Your task to perform on an android device: What's on my calendar today? Image 0: 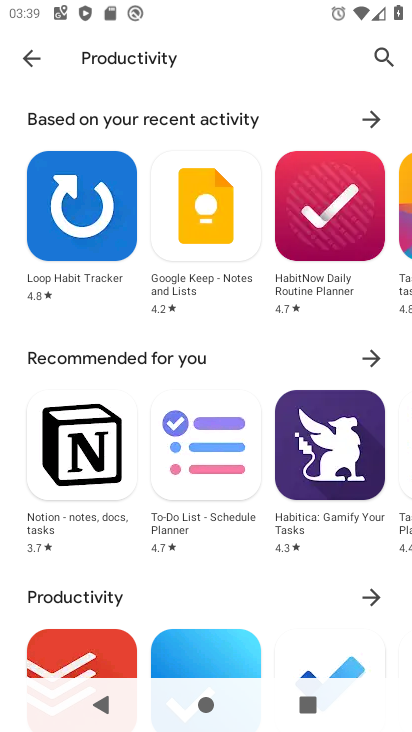
Step 0: press home button
Your task to perform on an android device: What's on my calendar today? Image 1: 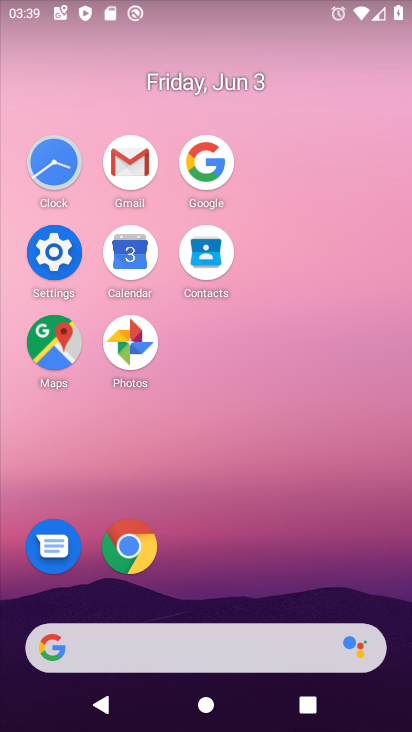
Step 1: click (138, 258)
Your task to perform on an android device: What's on my calendar today? Image 2: 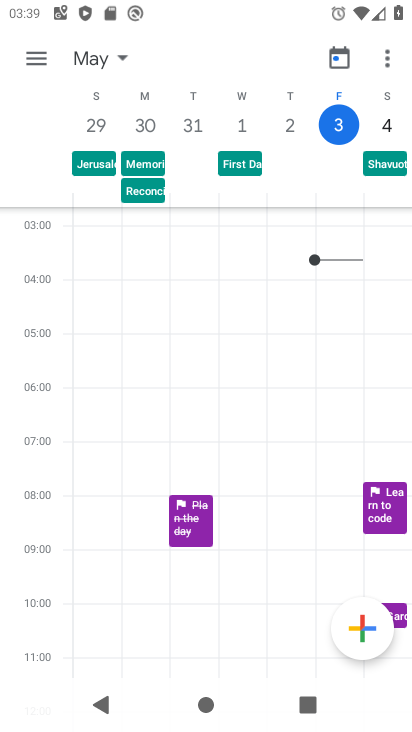
Step 2: click (348, 119)
Your task to perform on an android device: What's on my calendar today? Image 3: 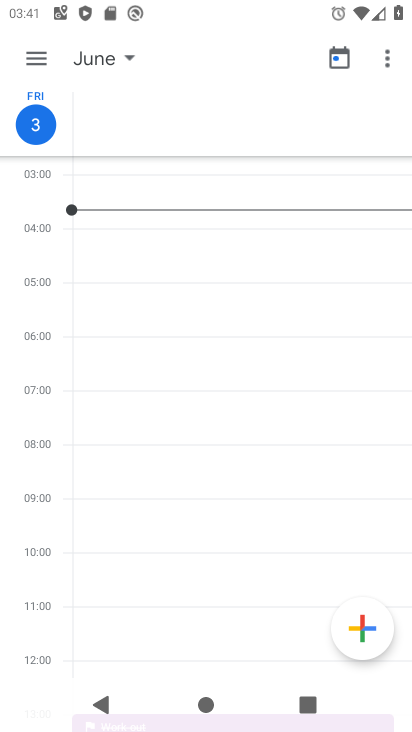
Step 3: task complete